Your task to perform on an android device: What is the price of a 12' ladder at Lowes? Image 0: 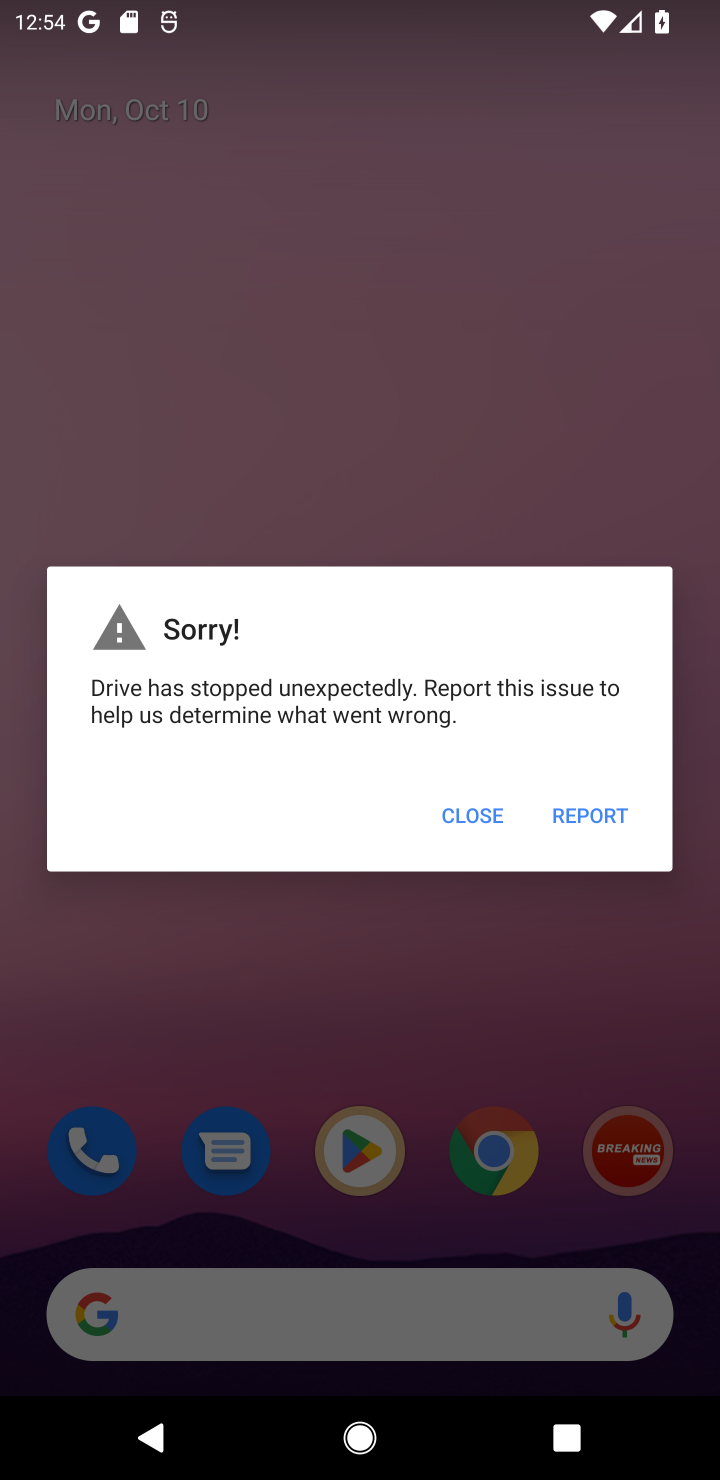
Step 0: press home button
Your task to perform on an android device: What is the price of a 12' ladder at Lowes? Image 1: 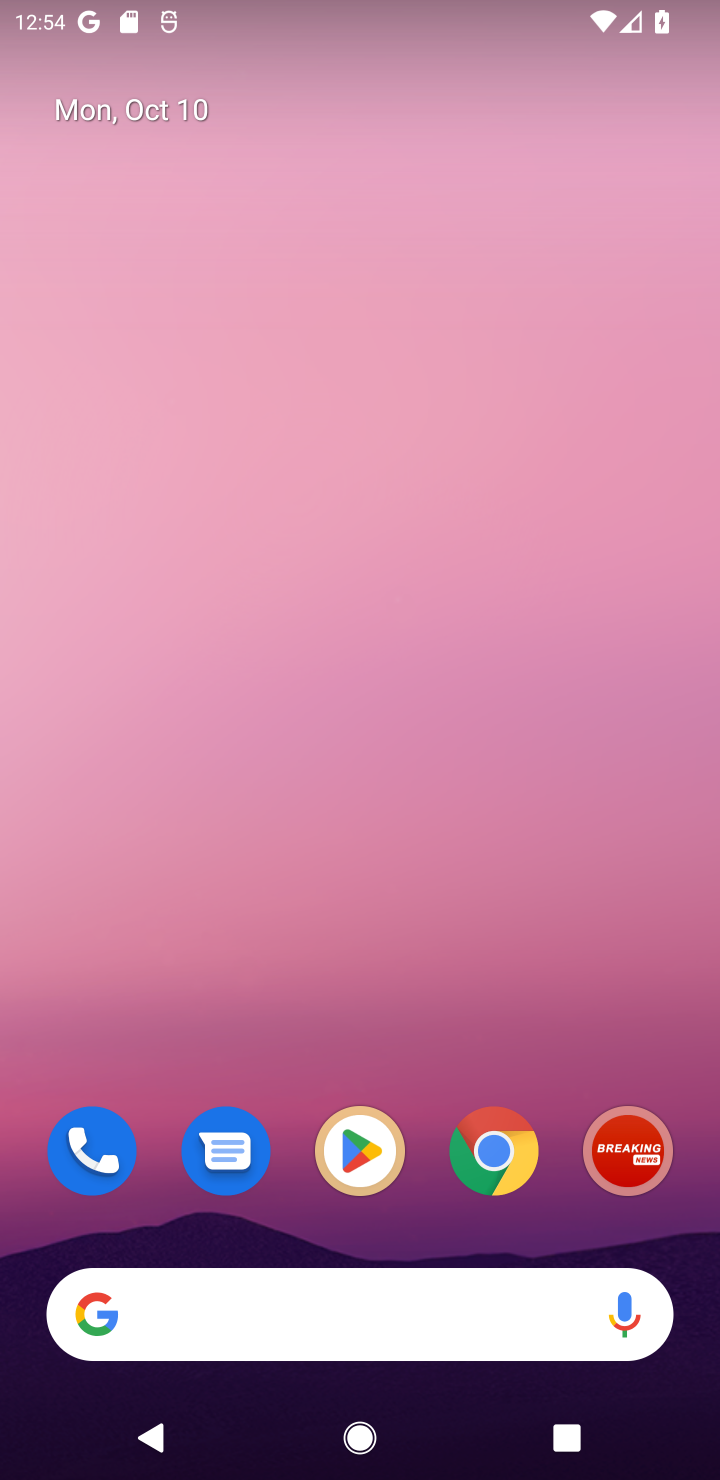
Step 1: click (314, 1296)
Your task to perform on an android device: What is the price of a 12' ladder at Lowes? Image 2: 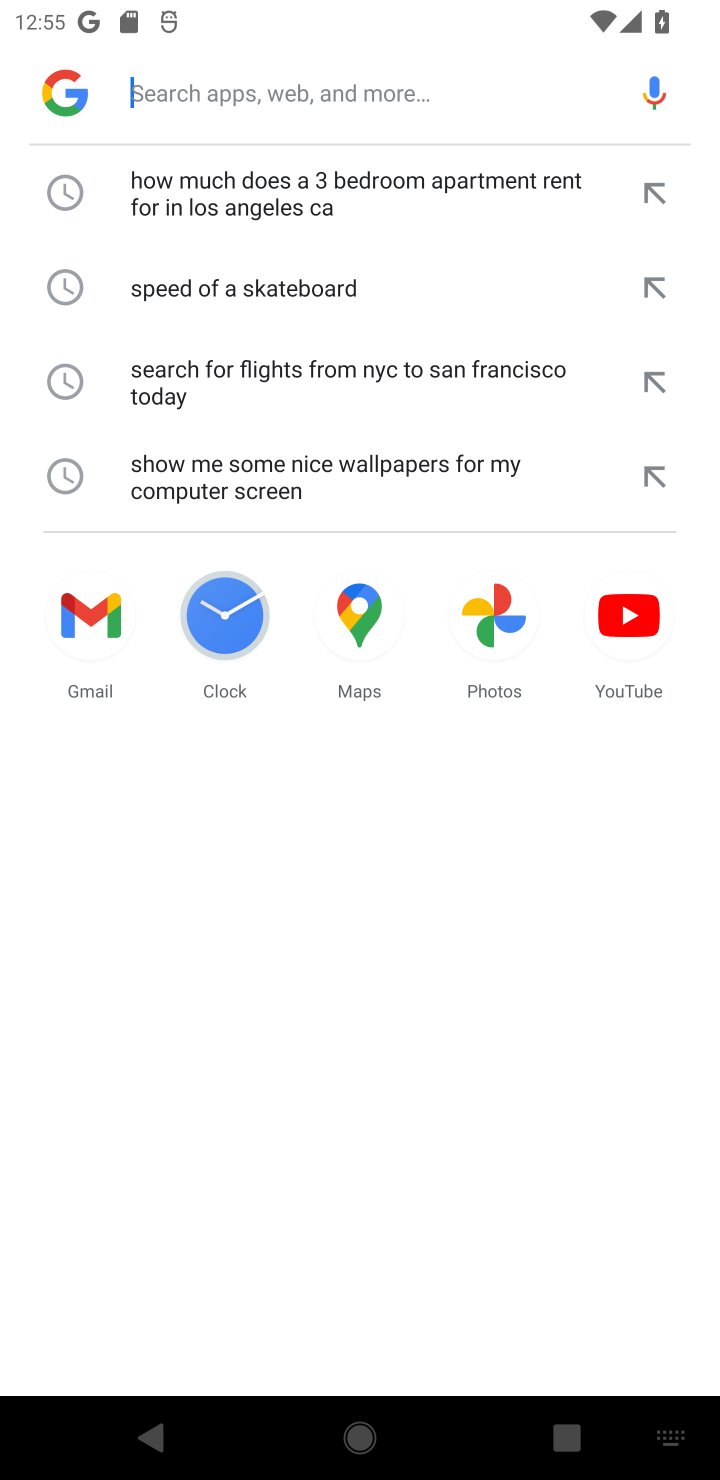
Step 2: type "What is the price of a 12' ladder at Lowes?"
Your task to perform on an android device: What is the price of a 12' ladder at Lowes? Image 3: 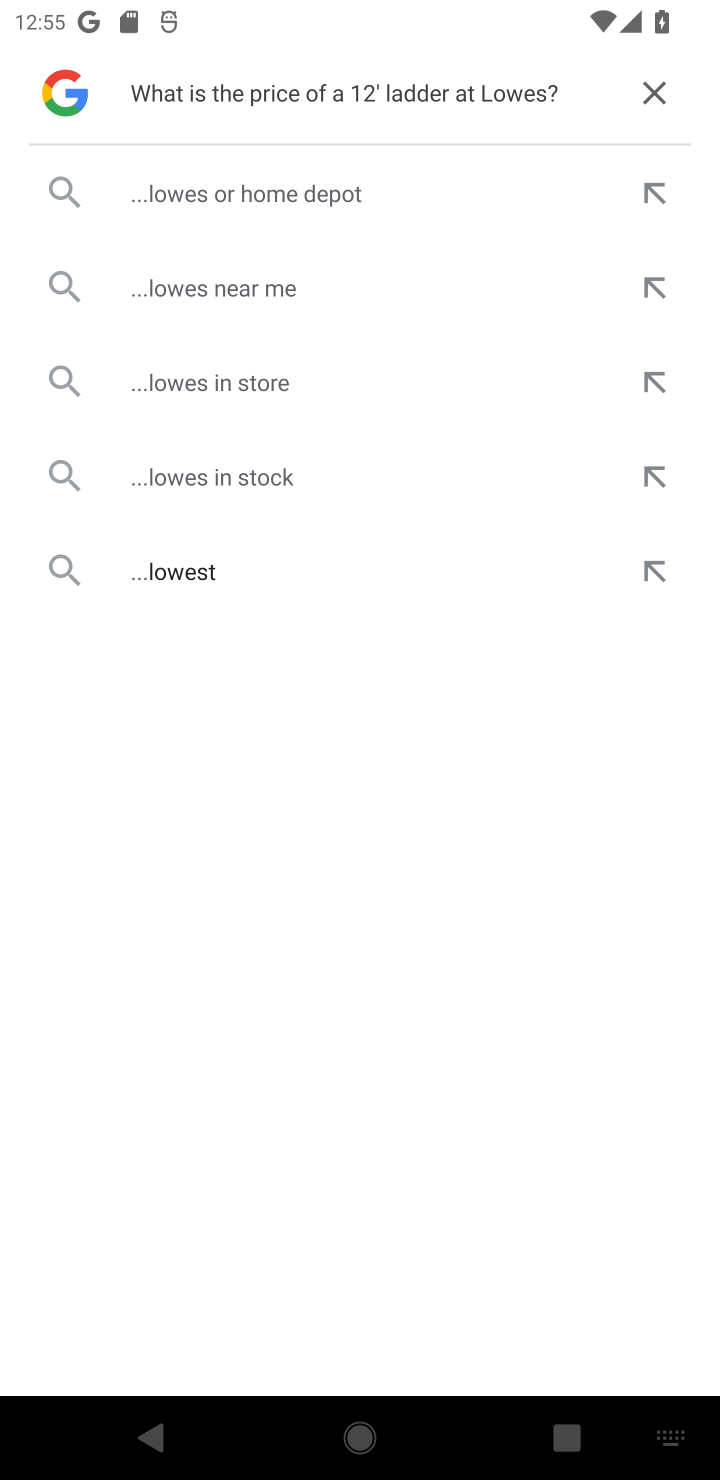
Step 3: click (158, 285)
Your task to perform on an android device: What is the price of a 12' ladder at Lowes? Image 4: 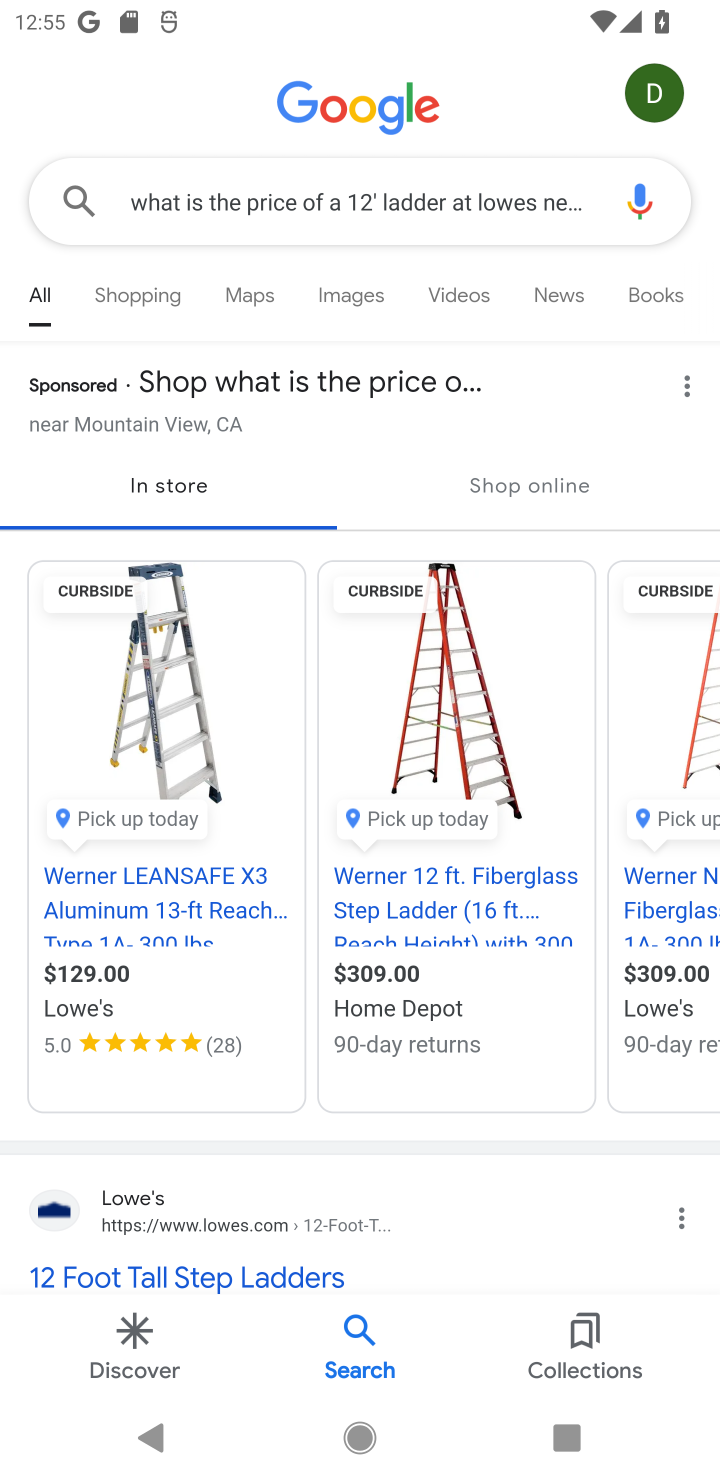
Step 4: task complete